Your task to perform on an android device: change timer sound Image 0: 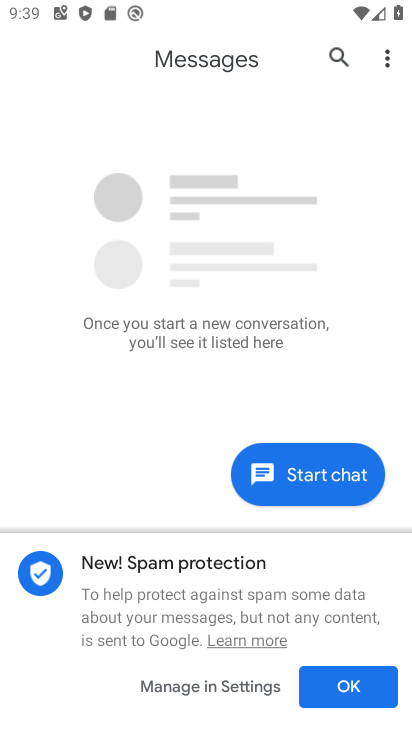
Step 0: press home button
Your task to perform on an android device: change timer sound Image 1: 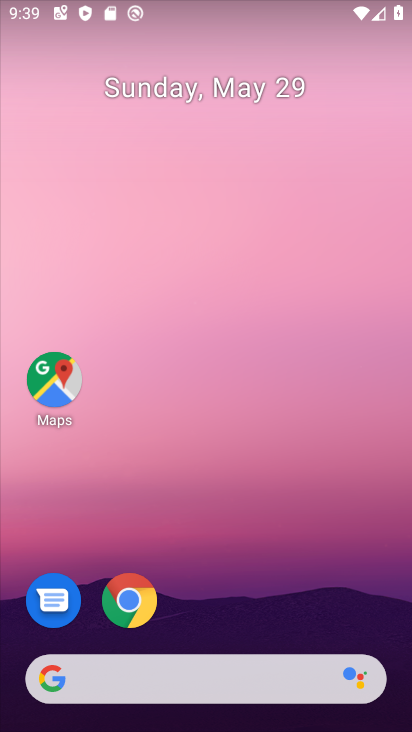
Step 1: drag from (222, 725) to (169, 136)
Your task to perform on an android device: change timer sound Image 2: 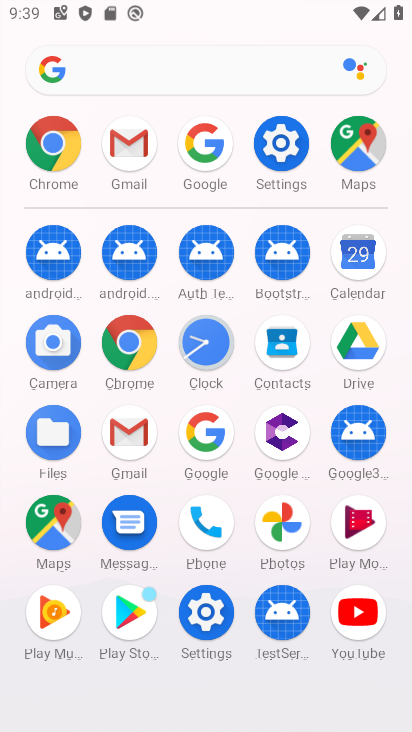
Step 2: click (209, 342)
Your task to perform on an android device: change timer sound Image 3: 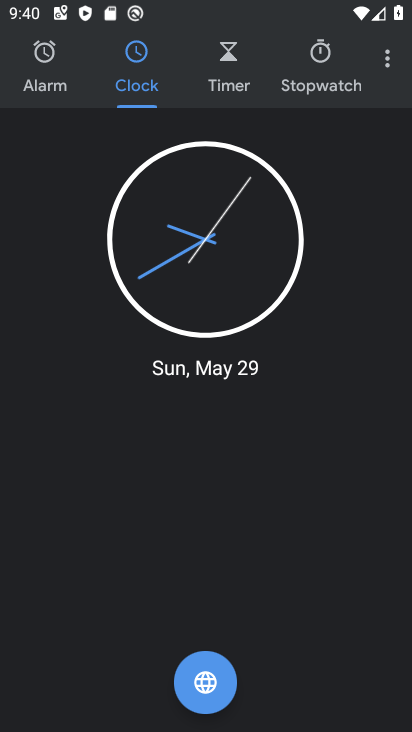
Step 3: click (388, 65)
Your task to perform on an android device: change timer sound Image 4: 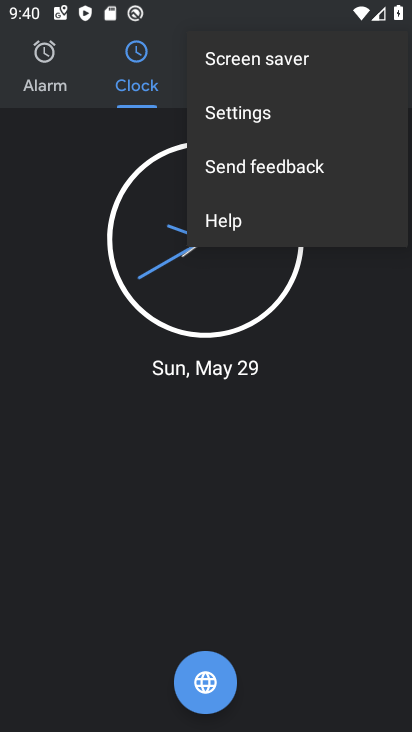
Step 4: click (252, 110)
Your task to perform on an android device: change timer sound Image 5: 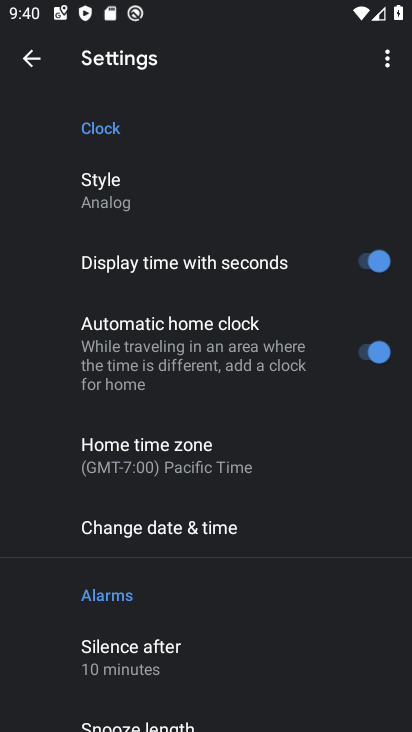
Step 5: drag from (173, 672) to (175, 452)
Your task to perform on an android device: change timer sound Image 6: 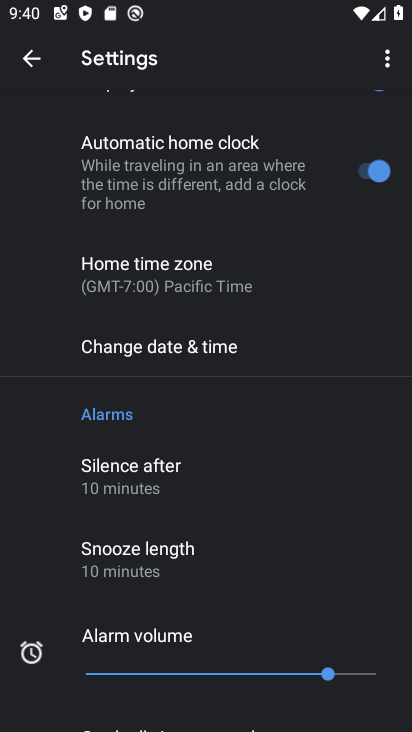
Step 6: drag from (169, 618) to (151, 275)
Your task to perform on an android device: change timer sound Image 7: 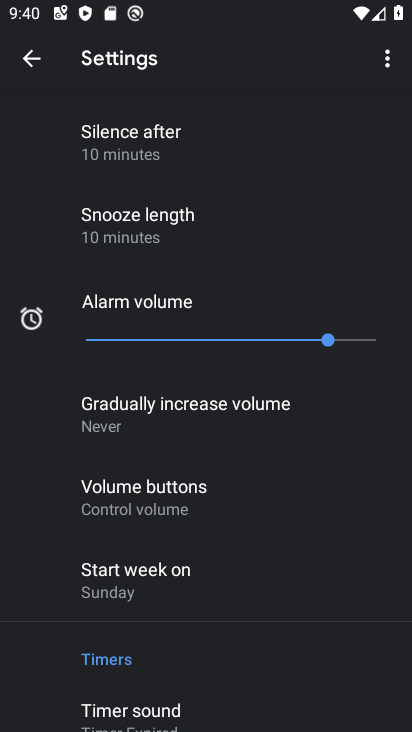
Step 7: drag from (147, 672) to (153, 361)
Your task to perform on an android device: change timer sound Image 8: 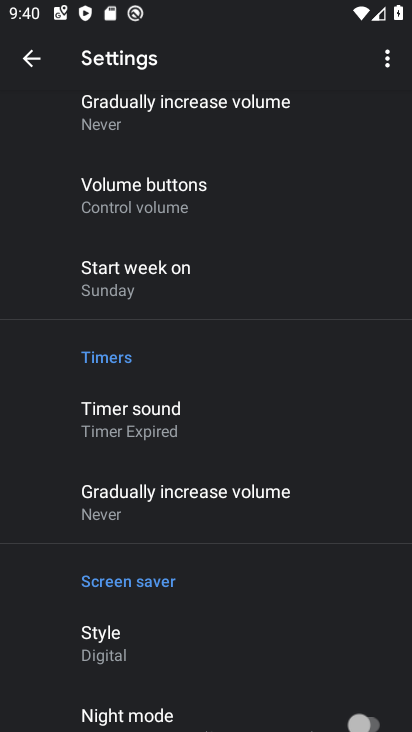
Step 8: click (141, 418)
Your task to perform on an android device: change timer sound Image 9: 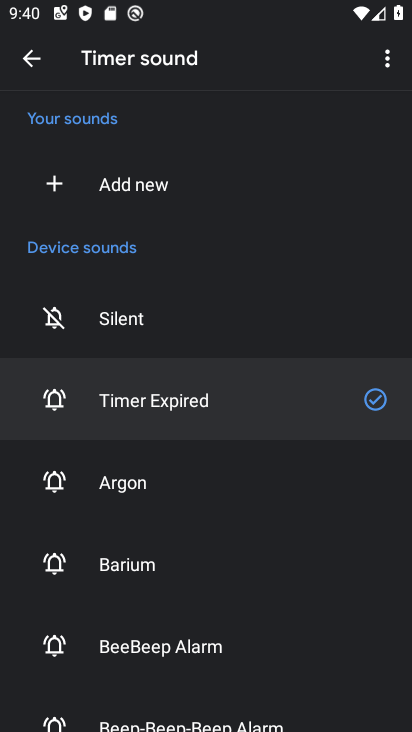
Step 9: click (139, 649)
Your task to perform on an android device: change timer sound Image 10: 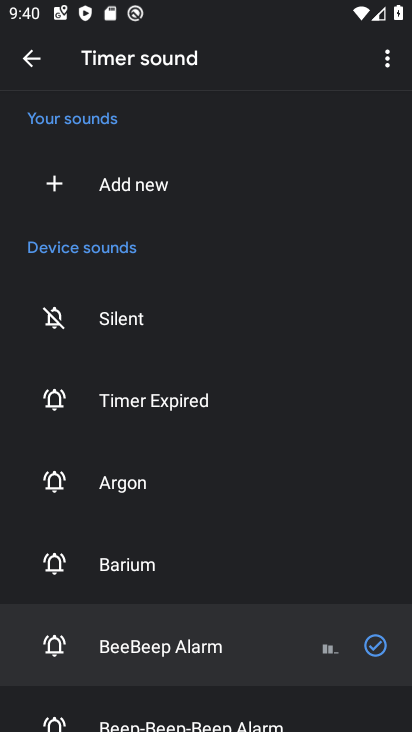
Step 10: task complete